Your task to perform on an android device: Go to display settings Image 0: 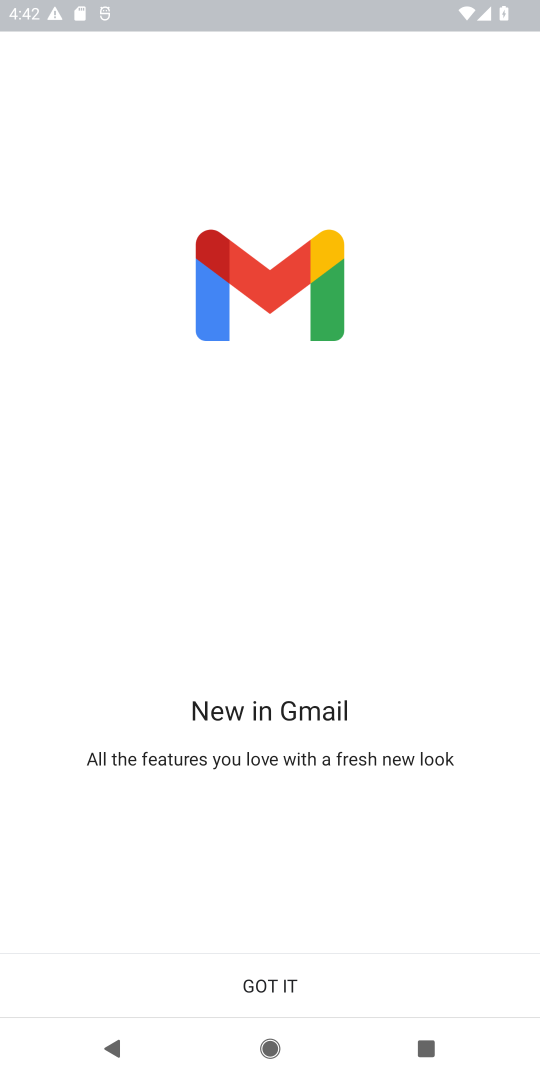
Step 0: press home button
Your task to perform on an android device: Go to display settings Image 1: 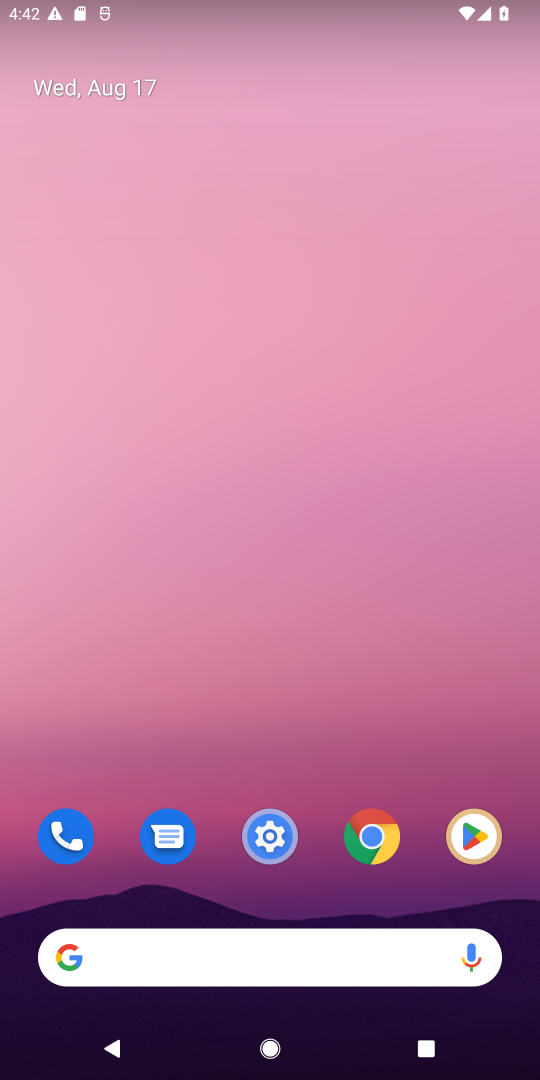
Step 1: click (269, 837)
Your task to perform on an android device: Go to display settings Image 2: 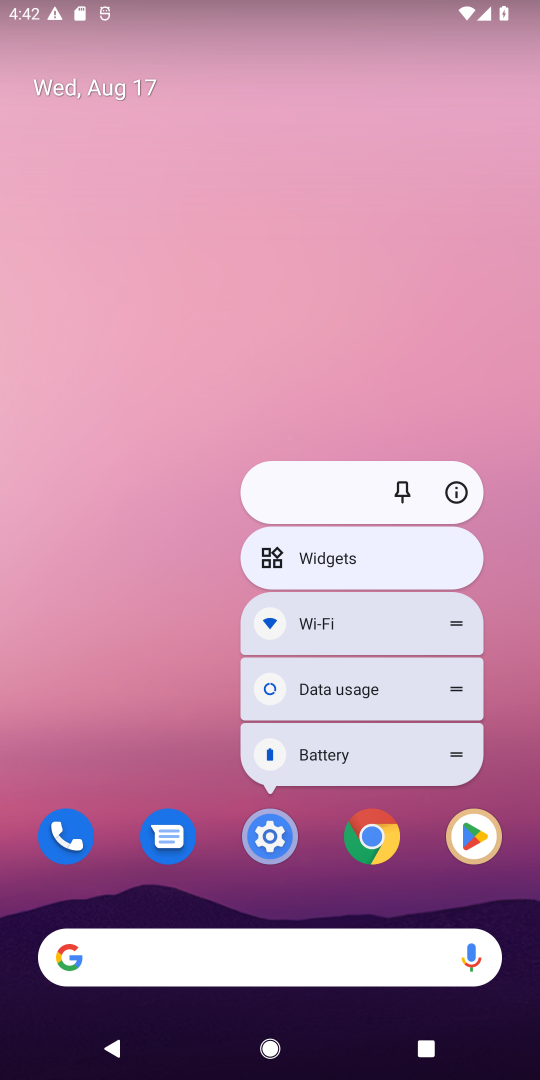
Step 2: click (267, 835)
Your task to perform on an android device: Go to display settings Image 3: 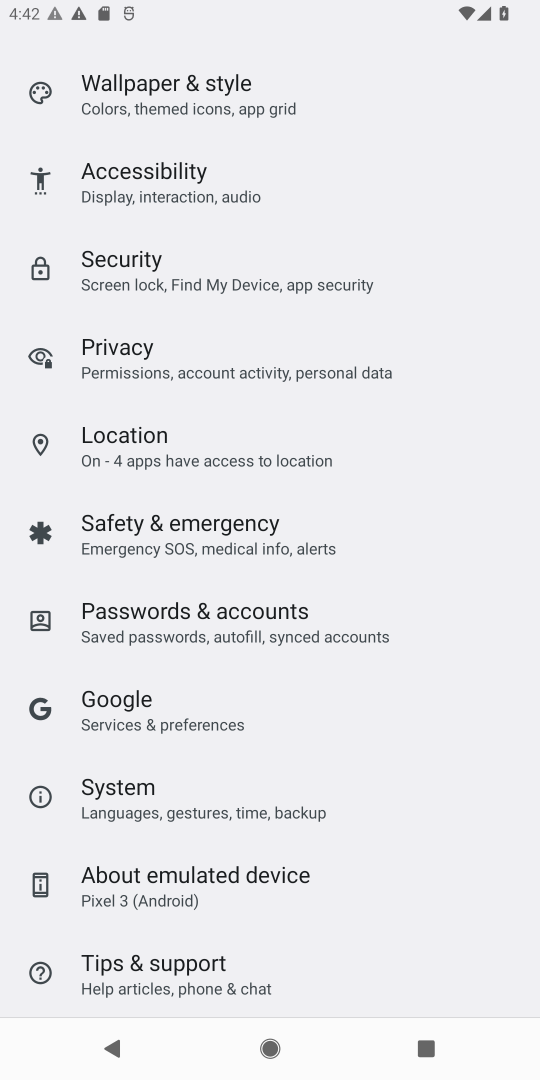
Step 3: drag from (408, 184) to (445, 886)
Your task to perform on an android device: Go to display settings Image 4: 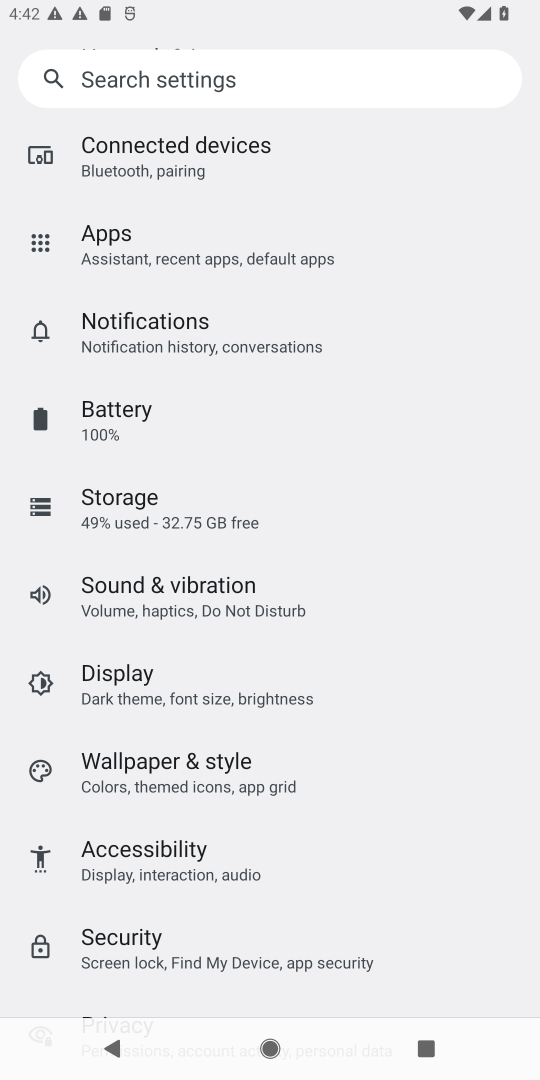
Step 4: click (143, 683)
Your task to perform on an android device: Go to display settings Image 5: 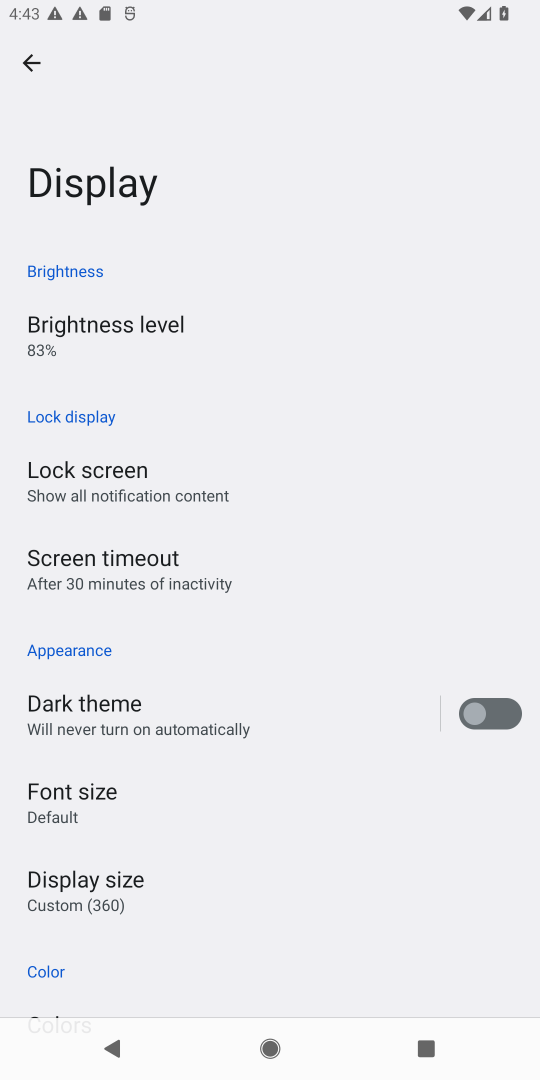
Step 5: task complete